Your task to perform on an android device: move an email to a new category in the gmail app Image 0: 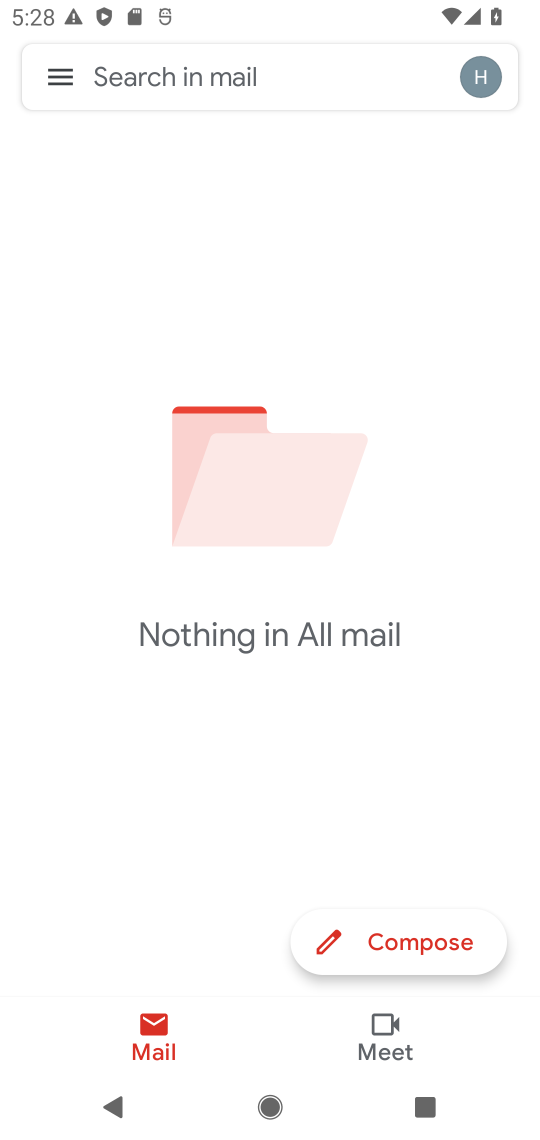
Step 0: press home button
Your task to perform on an android device: move an email to a new category in the gmail app Image 1: 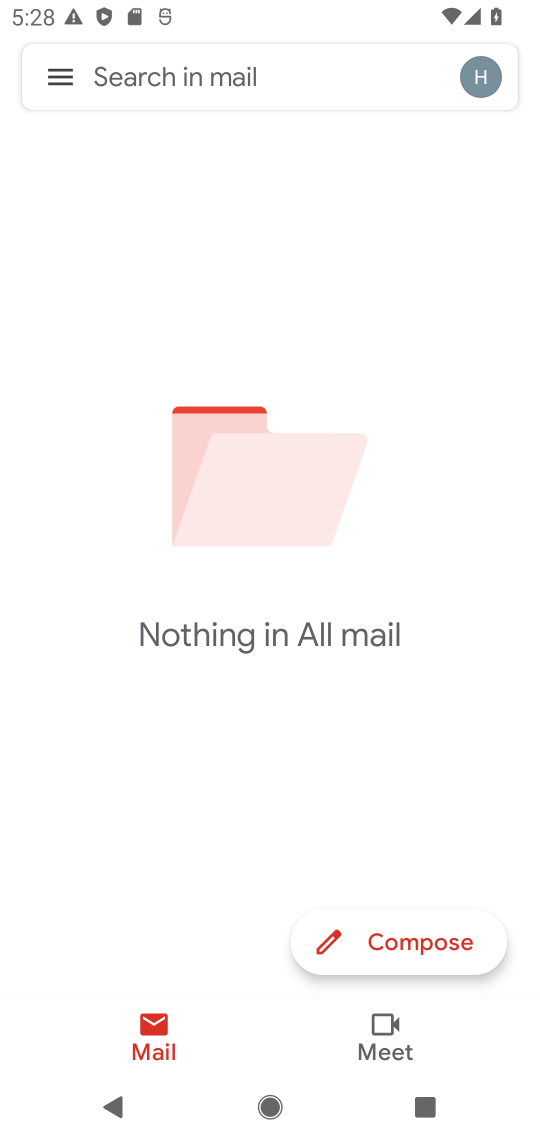
Step 1: press home button
Your task to perform on an android device: move an email to a new category in the gmail app Image 2: 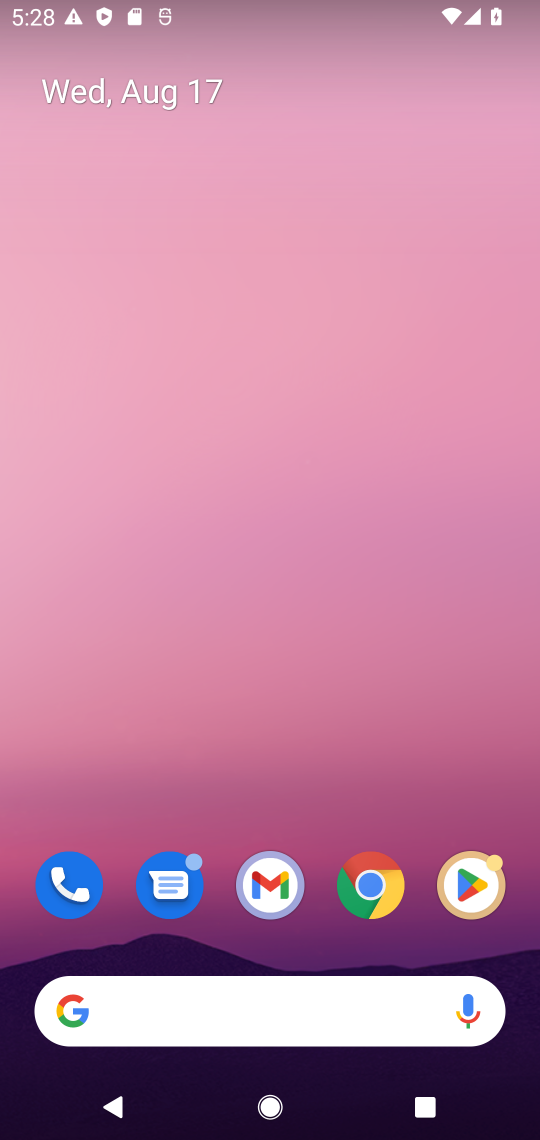
Step 2: drag from (310, 716) to (415, 22)
Your task to perform on an android device: move an email to a new category in the gmail app Image 3: 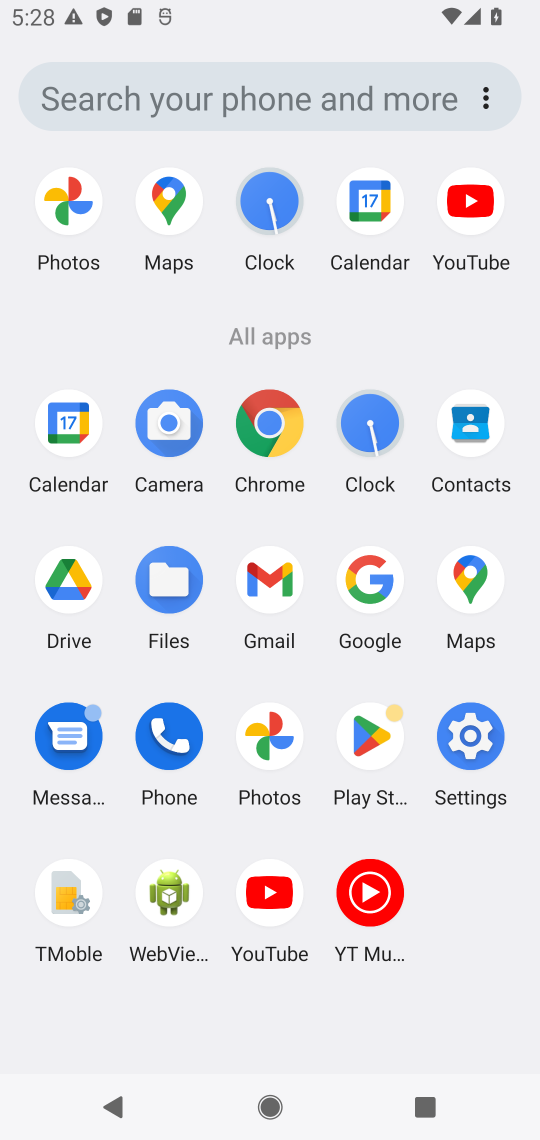
Step 3: click (241, 586)
Your task to perform on an android device: move an email to a new category in the gmail app Image 4: 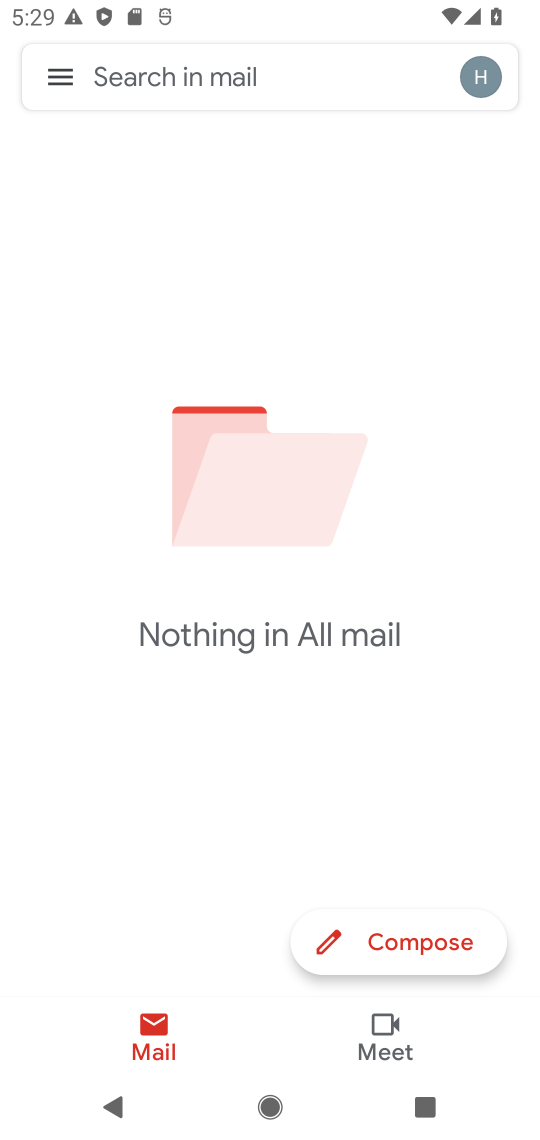
Step 4: task complete